Your task to perform on an android device: change timer sound Image 0: 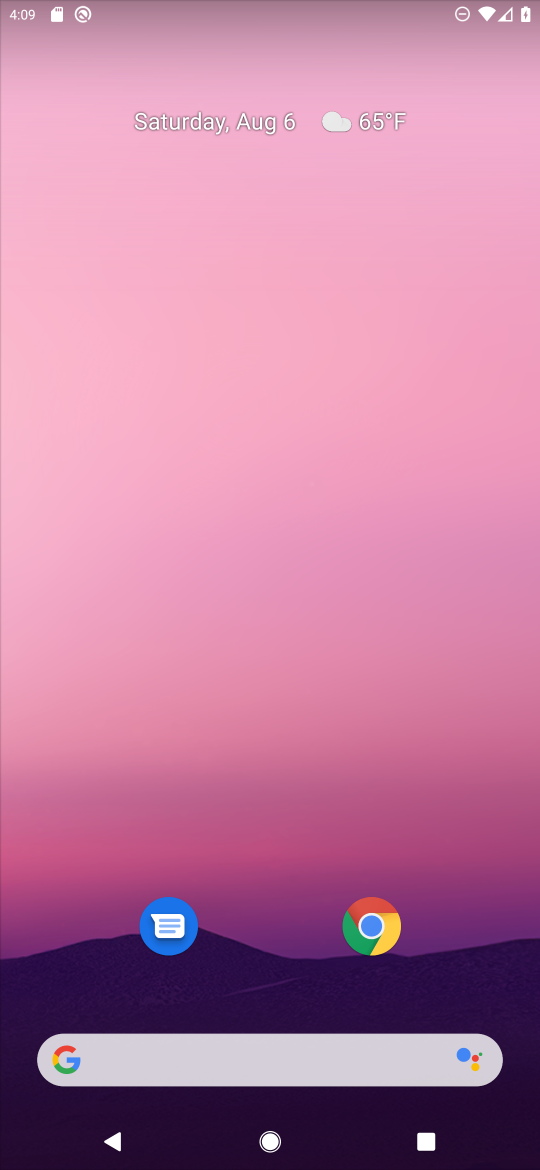
Step 0: drag from (270, 972) to (310, 194)
Your task to perform on an android device: change timer sound Image 1: 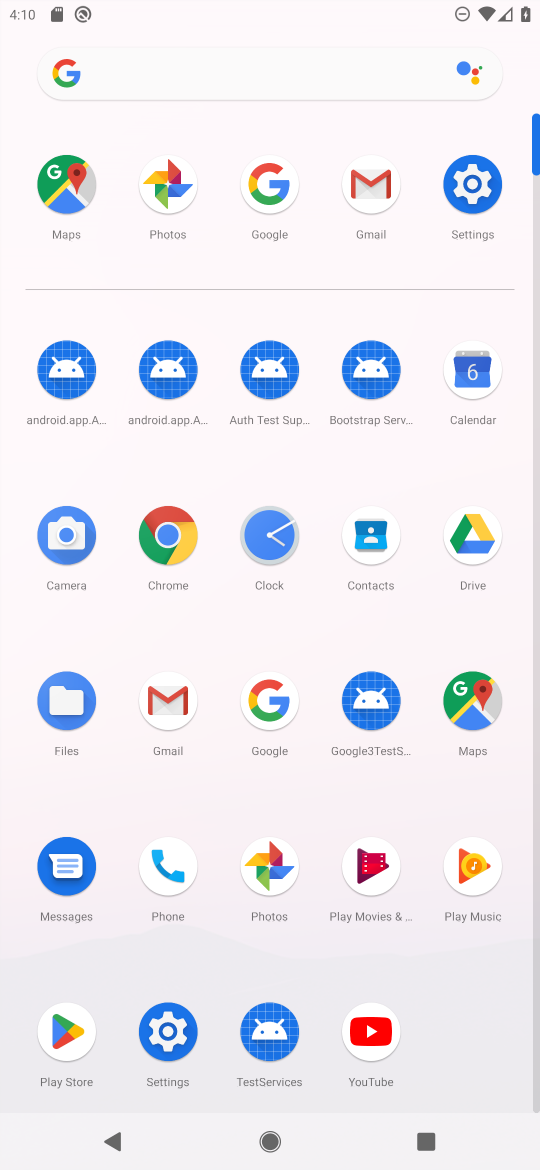
Step 1: click (256, 547)
Your task to perform on an android device: change timer sound Image 2: 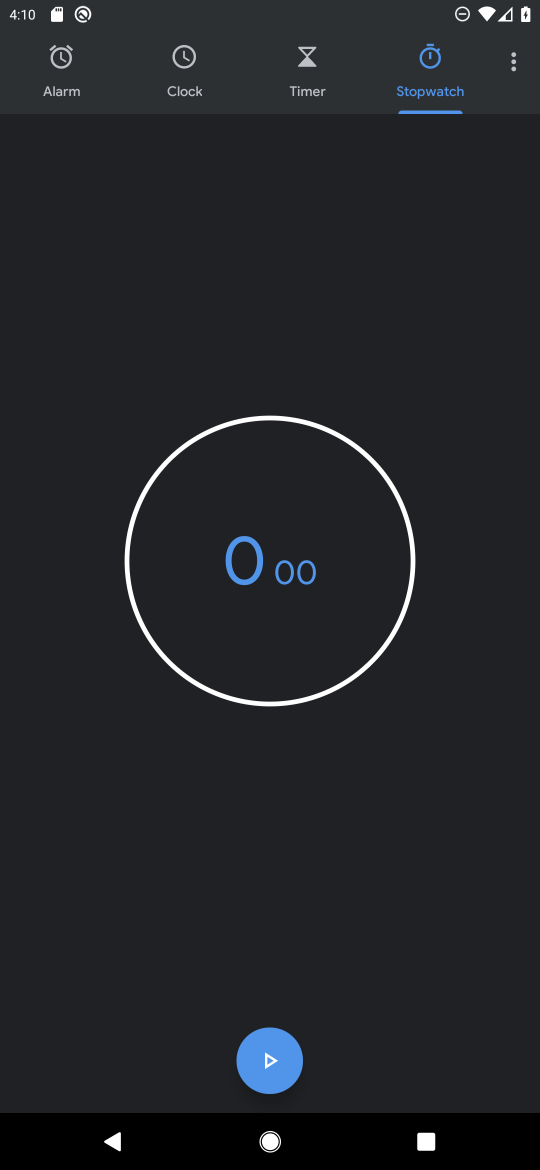
Step 2: click (513, 50)
Your task to perform on an android device: change timer sound Image 3: 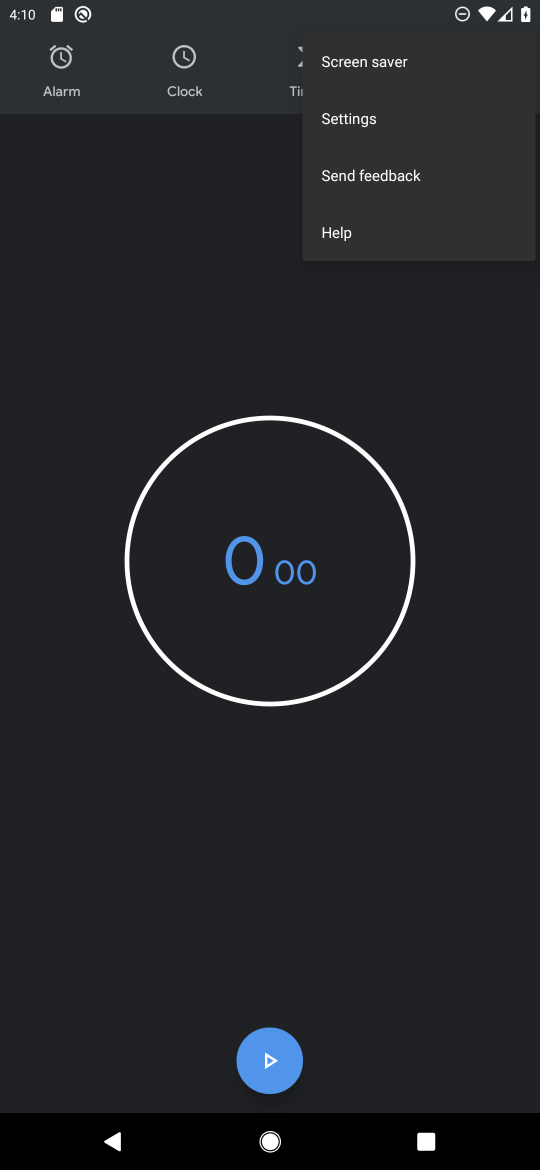
Step 3: click (383, 117)
Your task to perform on an android device: change timer sound Image 4: 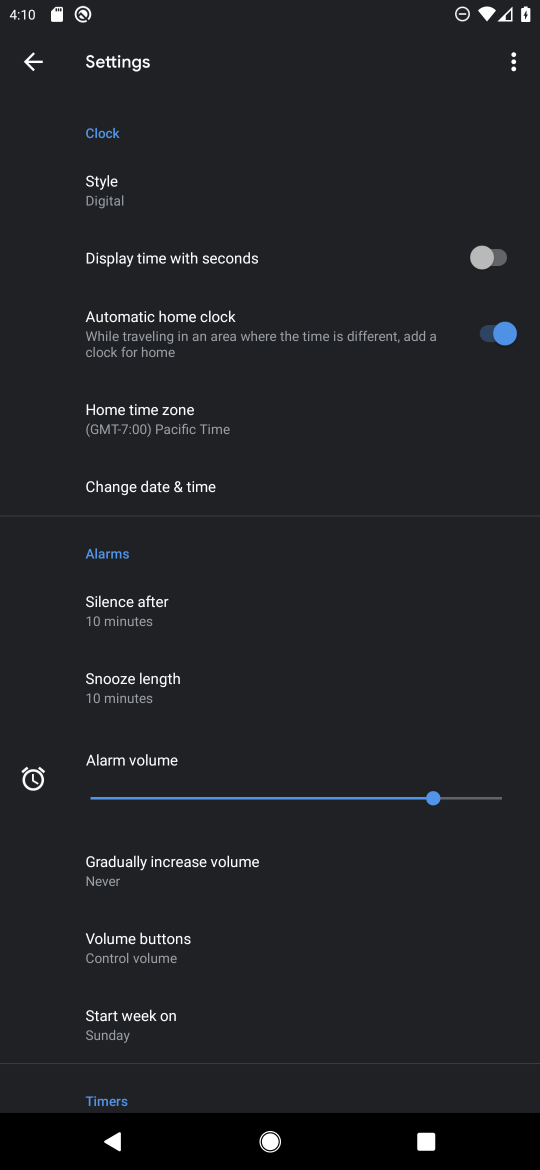
Step 4: drag from (275, 984) to (288, 510)
Your task to perform on an android device: change timer sound Image 5: 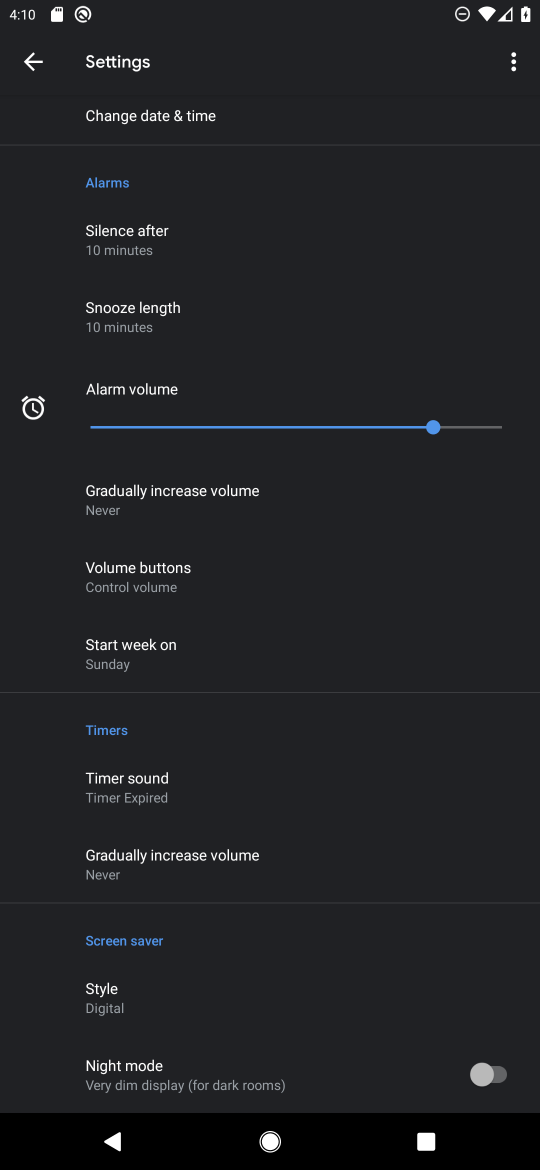
Step 5: click (185, 770)
Your task to perform on an android device: change timer sound Image 6: 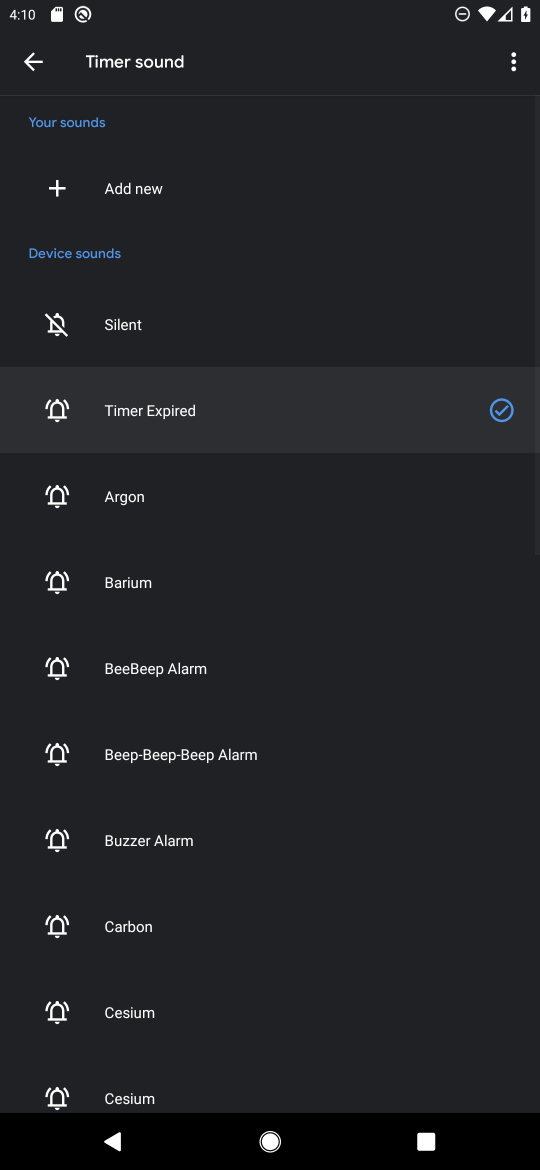
Step 6: click (253, 742)
Your task to perform on an android device: change timer sound Image 7: 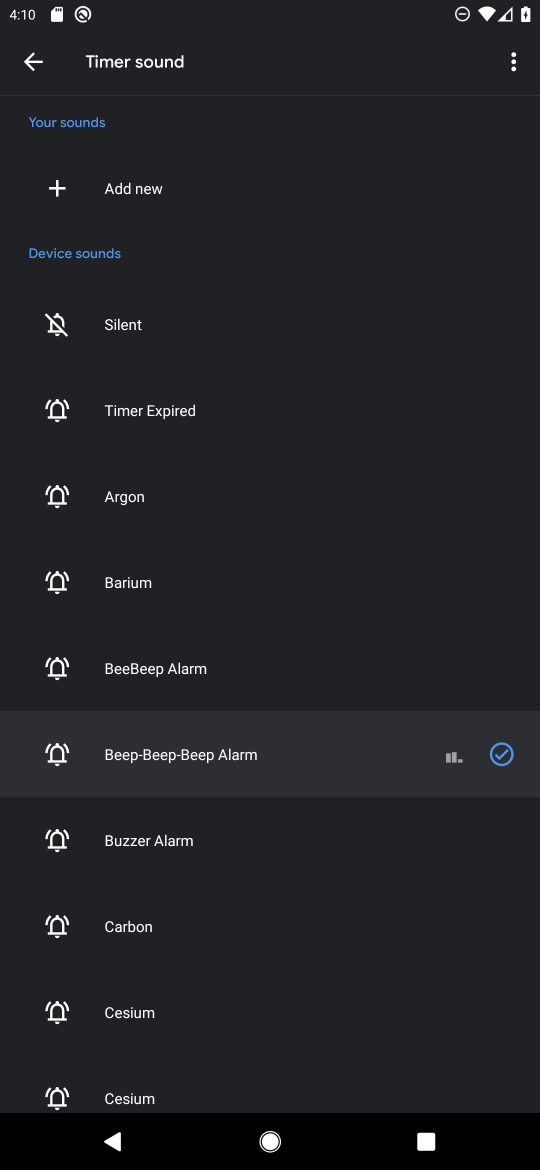
Step 7: task complete